Your task to perform on an android device: Search for vegetarian restaurants on Maps Image 0: 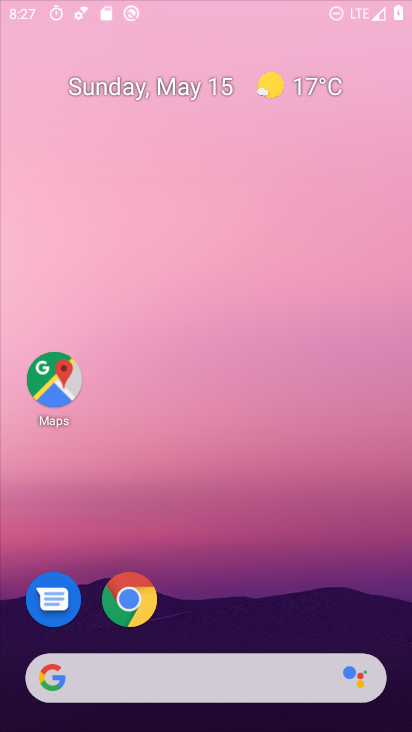
Step 0: press home button
Your task to perform on an android device: Search for vegetarian restaurants on Maps Image 1: 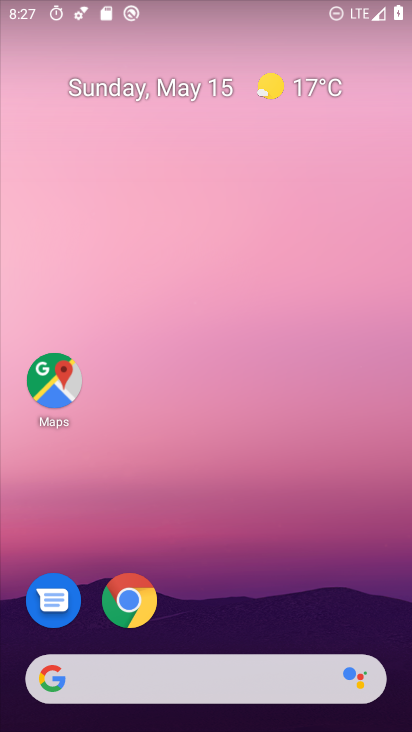
Step 1: click (53, 380)
Your task to perform on an android device: Search for vegetarian restaurants on Maps Image 2: 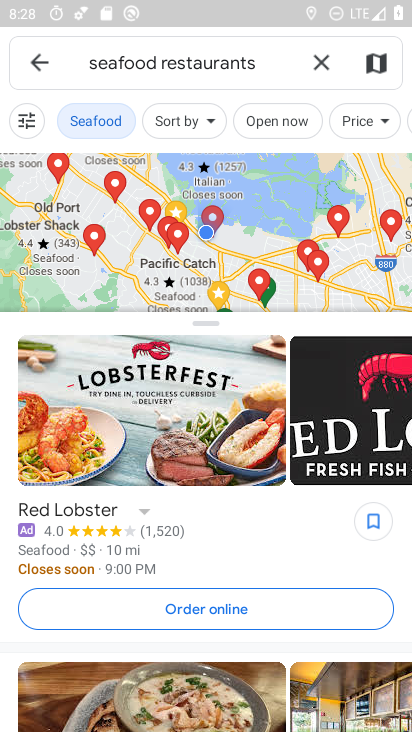
Step 2: click (319, 66)
Your task to perform on an android device: Search for vegetarian restaurants on Maps Image 3: 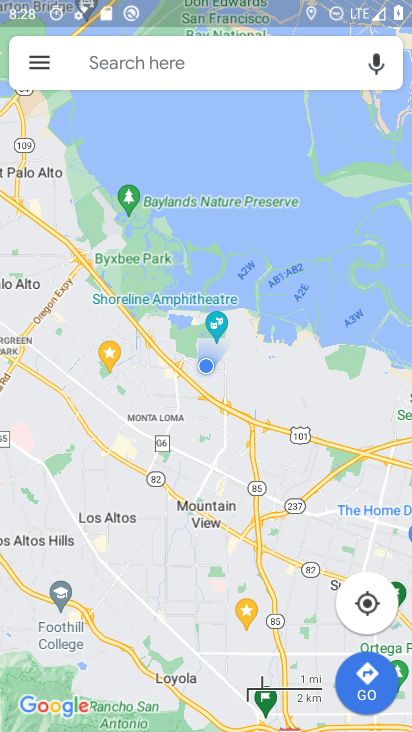
Step 3: click (174, 81)
Your task to perform on an android device: Search for vegetarian restaurants on Maps Image 4: 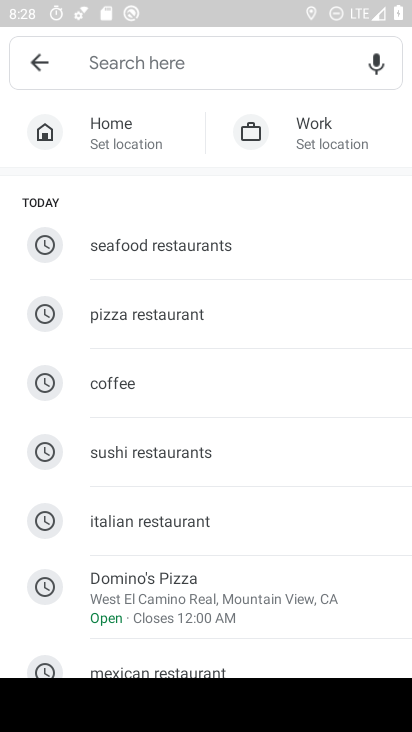
Step 4: type "vegetarian restaurants"
Your task to perform on an android device: Search for vegetarian restaurants on Maps Image 5: 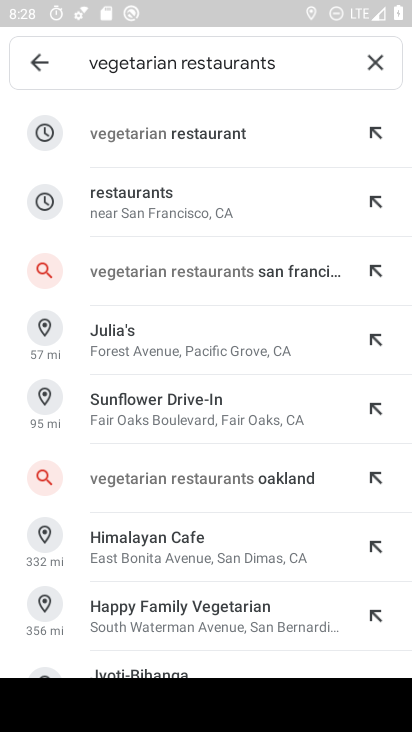
Step 5: click (192, 137)
Your task to perform on an android device: Search for vegetarian restaurants on Maps Image 6: 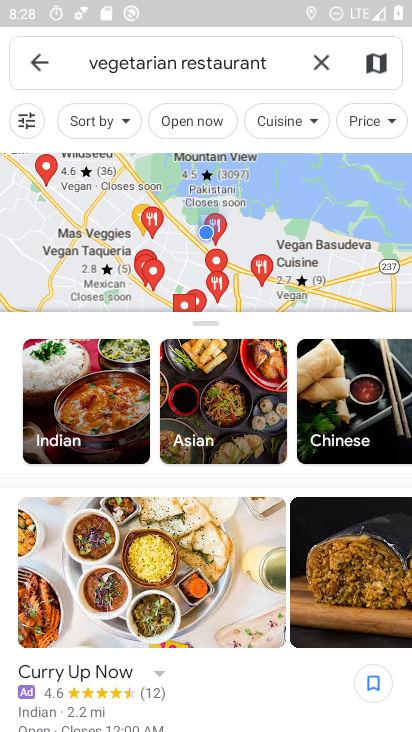
Step 6: task complete